Your task to perform on an android device: Open location settings Image 0: 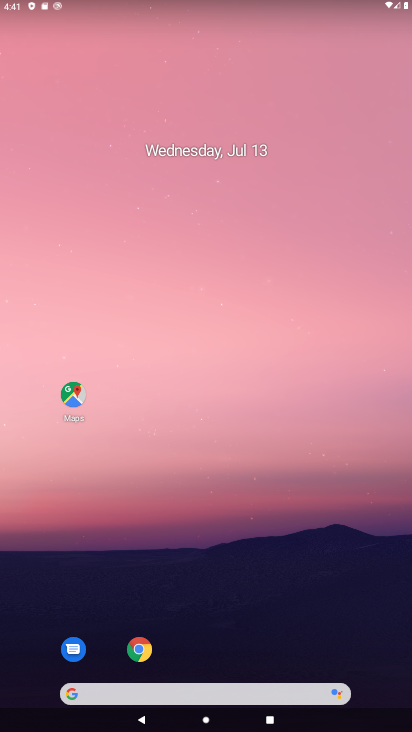
Step 0: drag from (295, 554) to (250, 81)
Your task to perform on an android device: Open location settings Image 1: 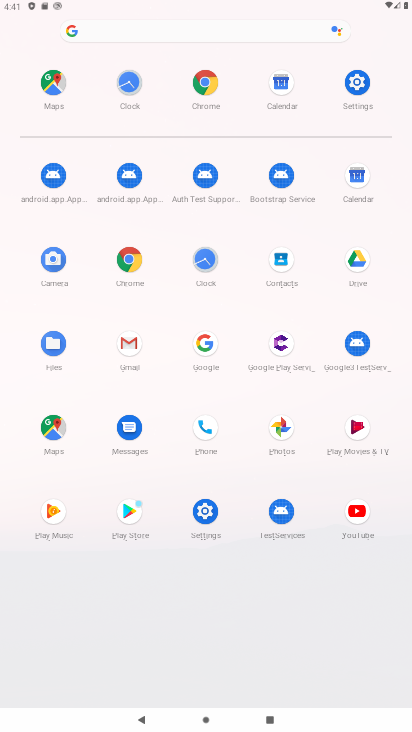
Step 1: click (367, 88)
Your task to perform on an android device: Open location settings Image 2: 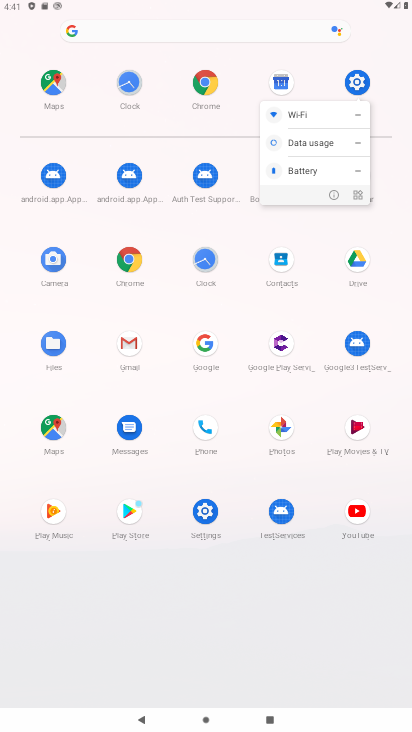
Step 2: click (367, 87)
Your task to perform on an android device: Open location settings Image 3: 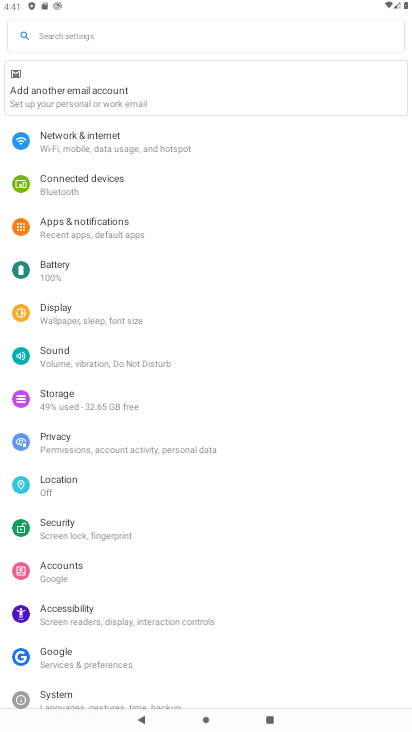
Step 3: click (60, 474)
Your task to perform on an android device: Open location settings Image 4: 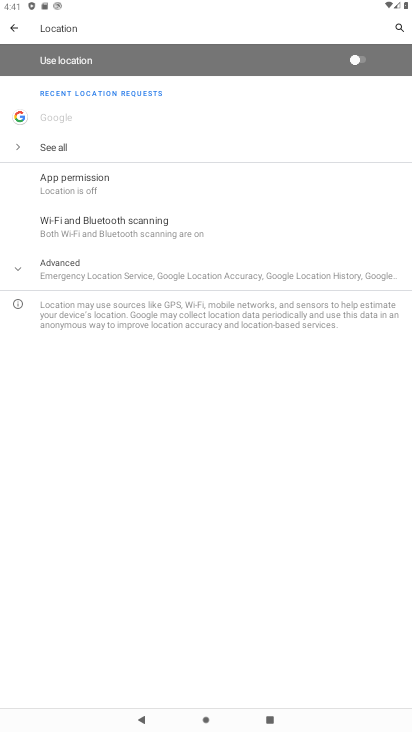
Step 4: task complete